Your task to perform on an android device: change alarm snooze length Image 0: 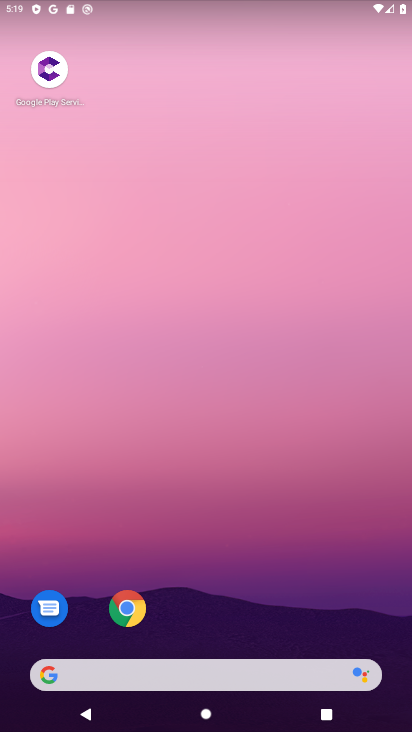
Step 0: drag from (247, 526) to (213, 31)
Your task to perform on an android device: change alarm snooze length Image 1: 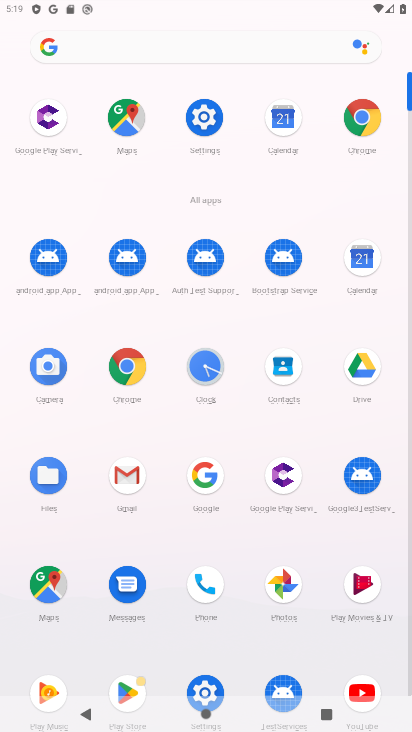
Step 1: click (199, 368)
Your task to perform on an android device: change alarm snooze length Image 2: 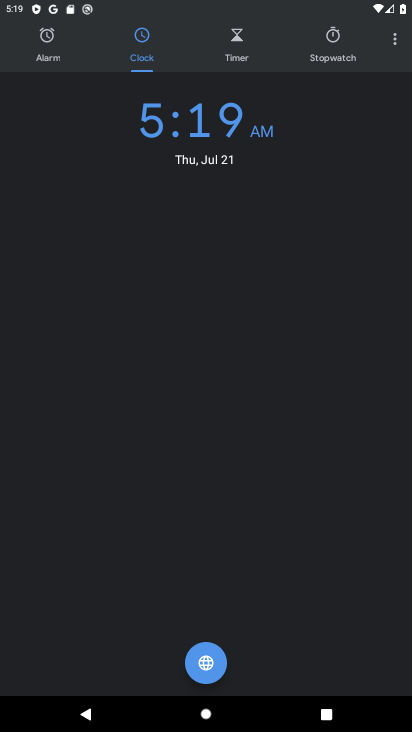
Step 2: click (394, 46)
Your task to perform on an android device: change alarm snooze length Image 3: 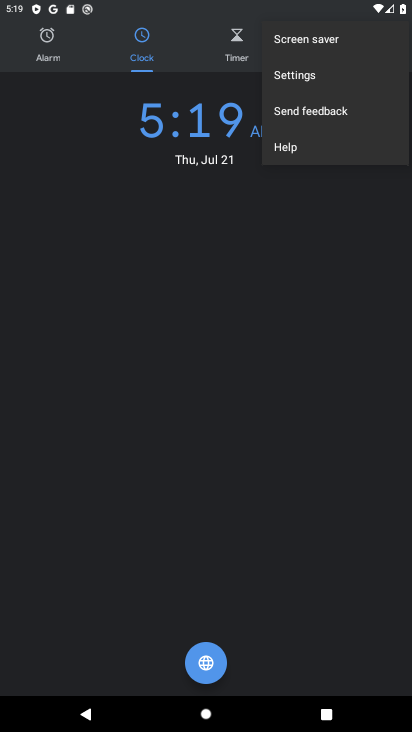
Step 3: click (299, 72)
Your task to perform on an android device: change alarm snooze length Image 4: 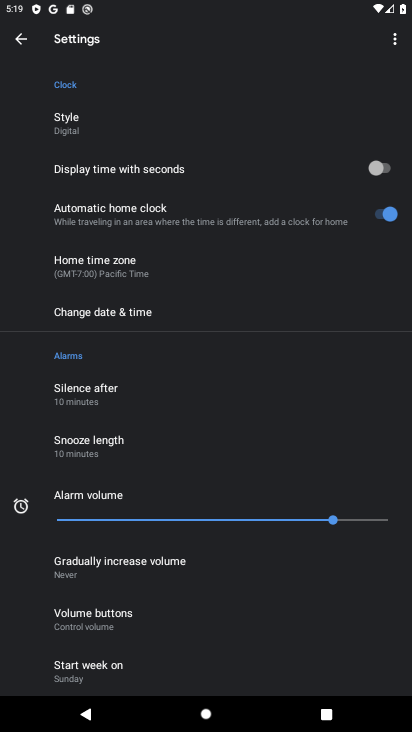
Step 4: drag from (195, 638) to (150, 283)
Your task to perform on an android device: change alarm snooze length Image 5: 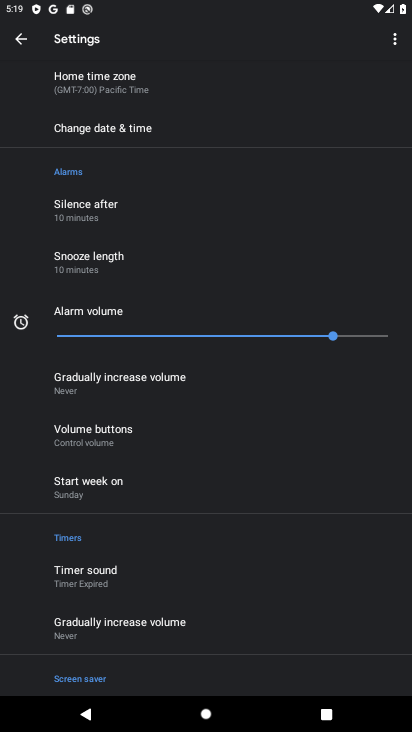
Step 5: drag from (205, 568) to (200, 305)
Your task to perform on an android device: change alarm snooze length Image 6: 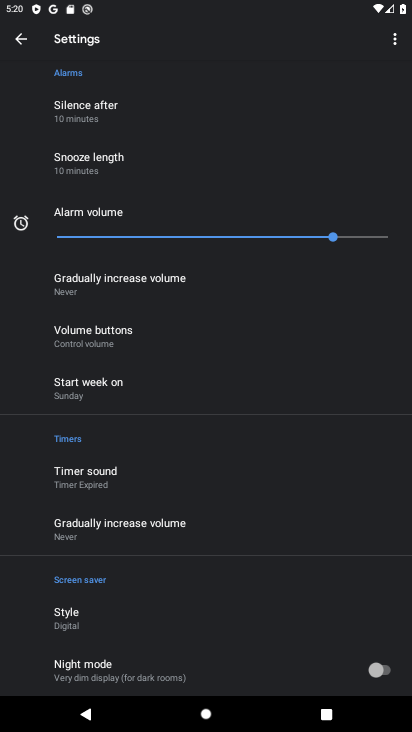
Step 6: click (103, 152)
Your task to perform on an android device: change alarm snooze length Image 7: 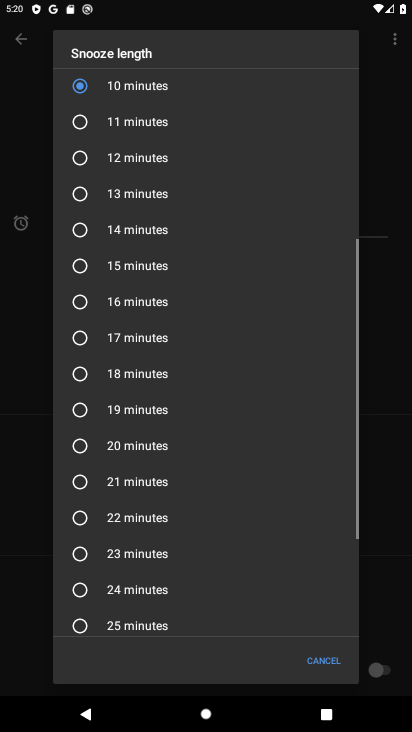
Step 7: click (67, 155)
Your task to perform on an android device: change alarm snooze length Image 8: 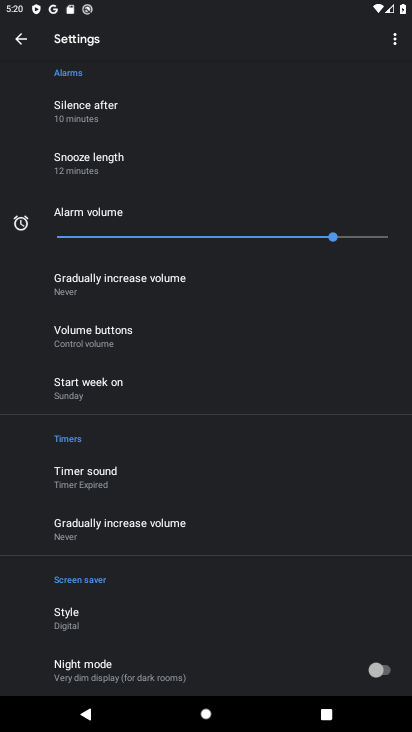
Step 8: task complete